Your task to perform on an android device: change the clock display to show seconds Image 0: 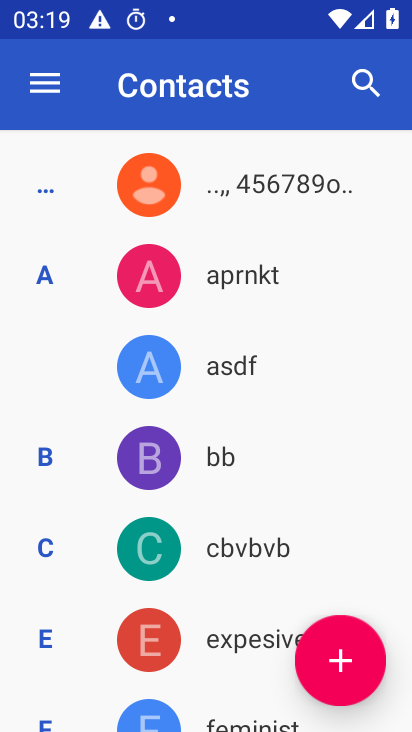
Step 0: press home button
Your task to perform on an android device: change the clock display to show seconds Image 1: 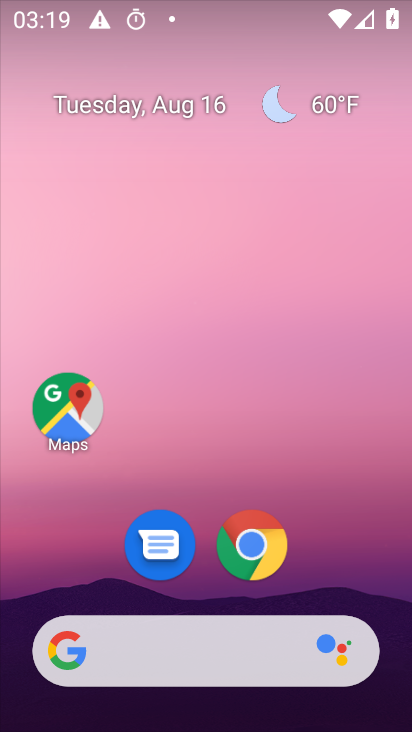
Step 1: drag from (127, 624) to (163, 169)
Your task to perform on an android device: change the clock display to show seconds Image 2: 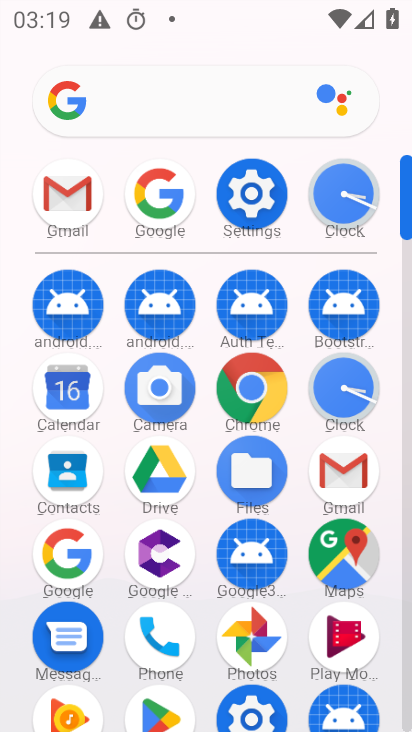
Step 2: click (349, 397)
Your task to perform on an android device: change the clock display to show seconds Image 3: 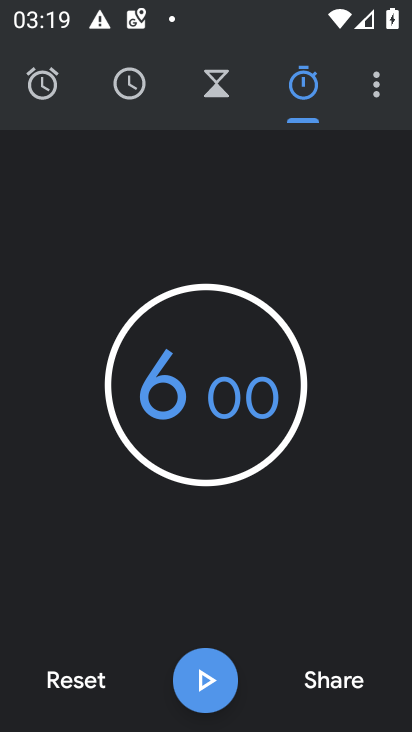
Step 3: click (377, 88)
Your task to perform on an android device: change the clock display to show seconds Image 4: 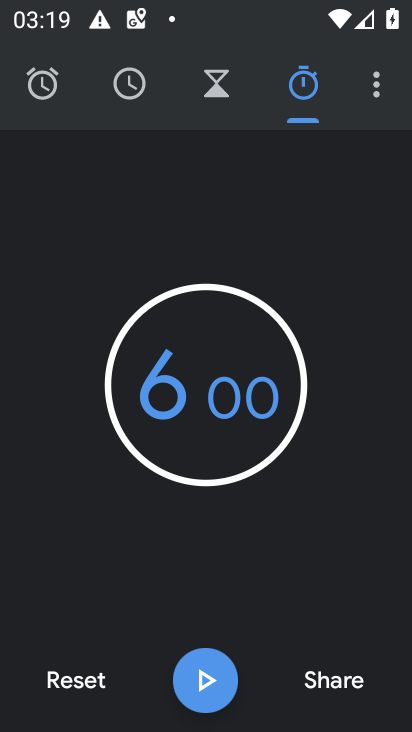
Step 4: click (376, 89)
Your task to perform on an android device: change the clock display to show seconds Image 5: 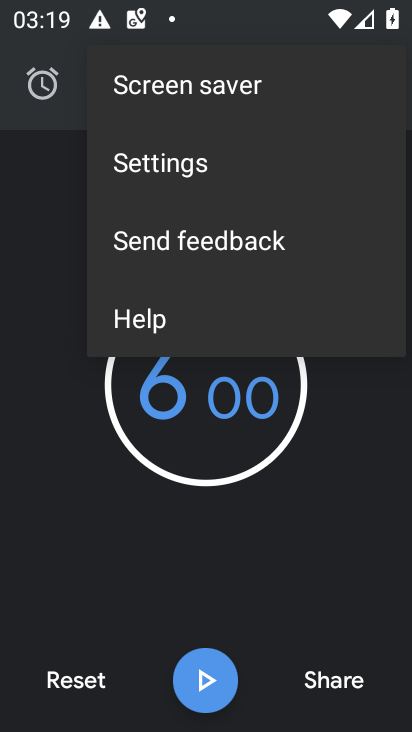
Step 5: click (183, 156)
Your task to perform on an android device: change the clock display to show seconds Image 6: 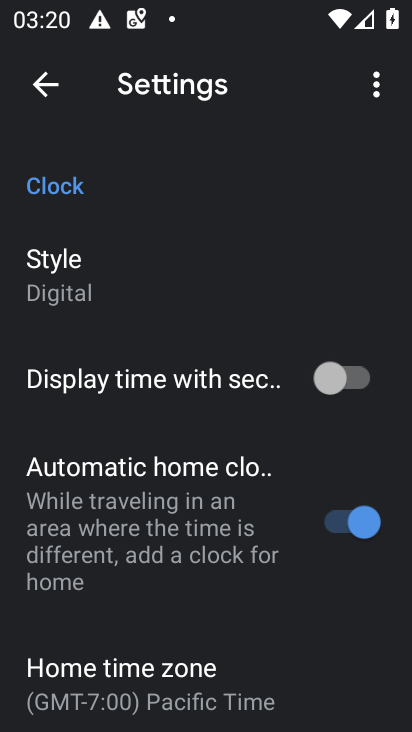
Step 6: click (346, 382)
Your task to perform on an android device: change the clock display to show seconds Image 7: 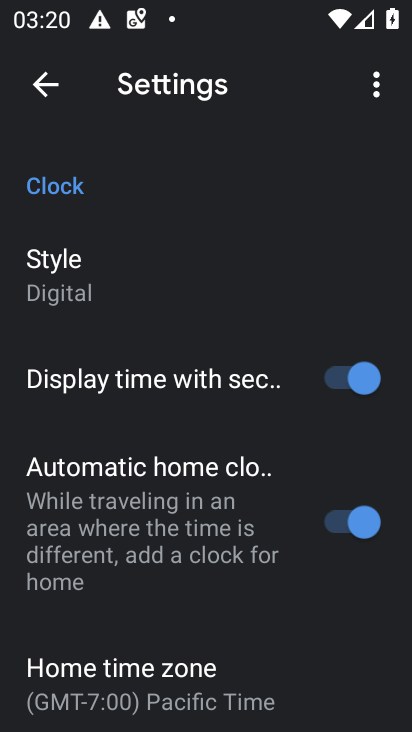
Step 7: task complete